Your task to perform on an android device: uninstall "Adobe Acrobat Reader" Image 0: 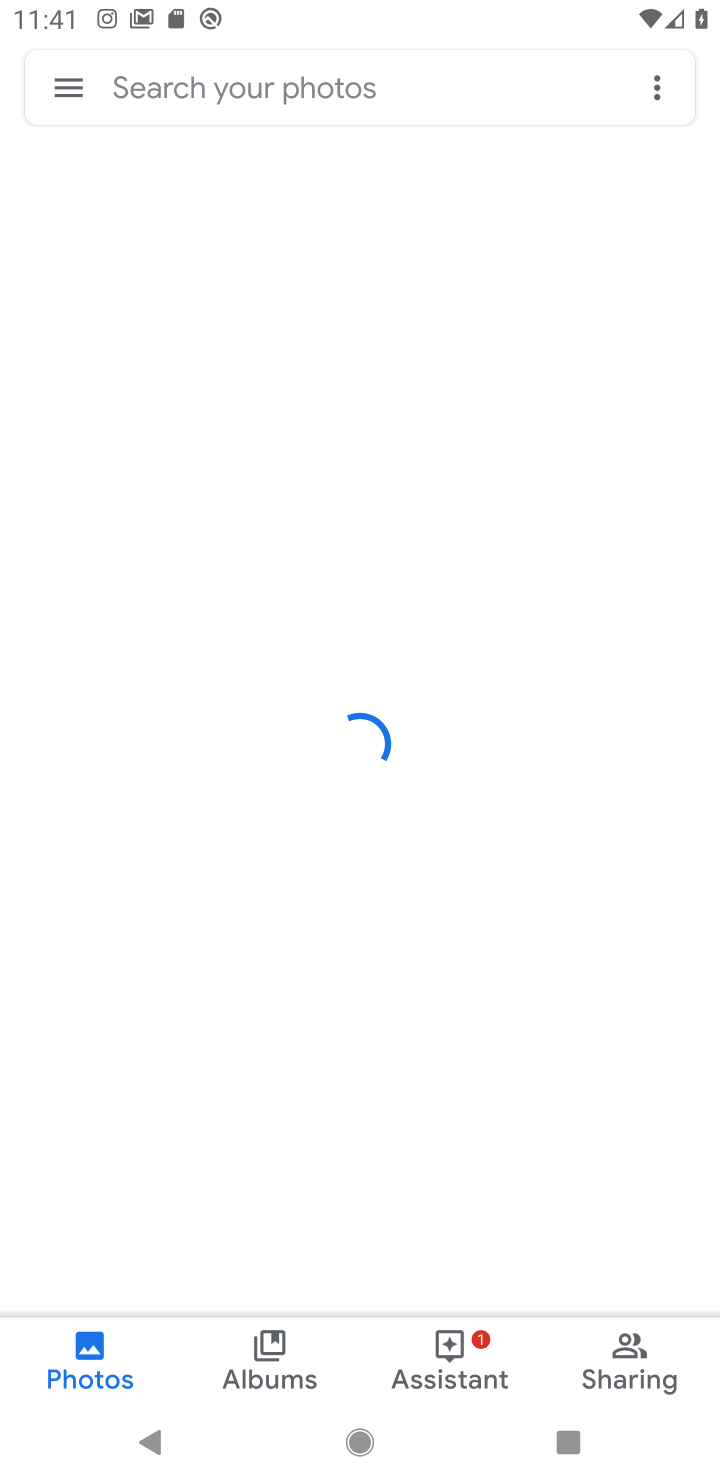
Step 0: press back button
Your task to perform on an android device: uninstall "Adobe Acrobat Reader" Image 1: 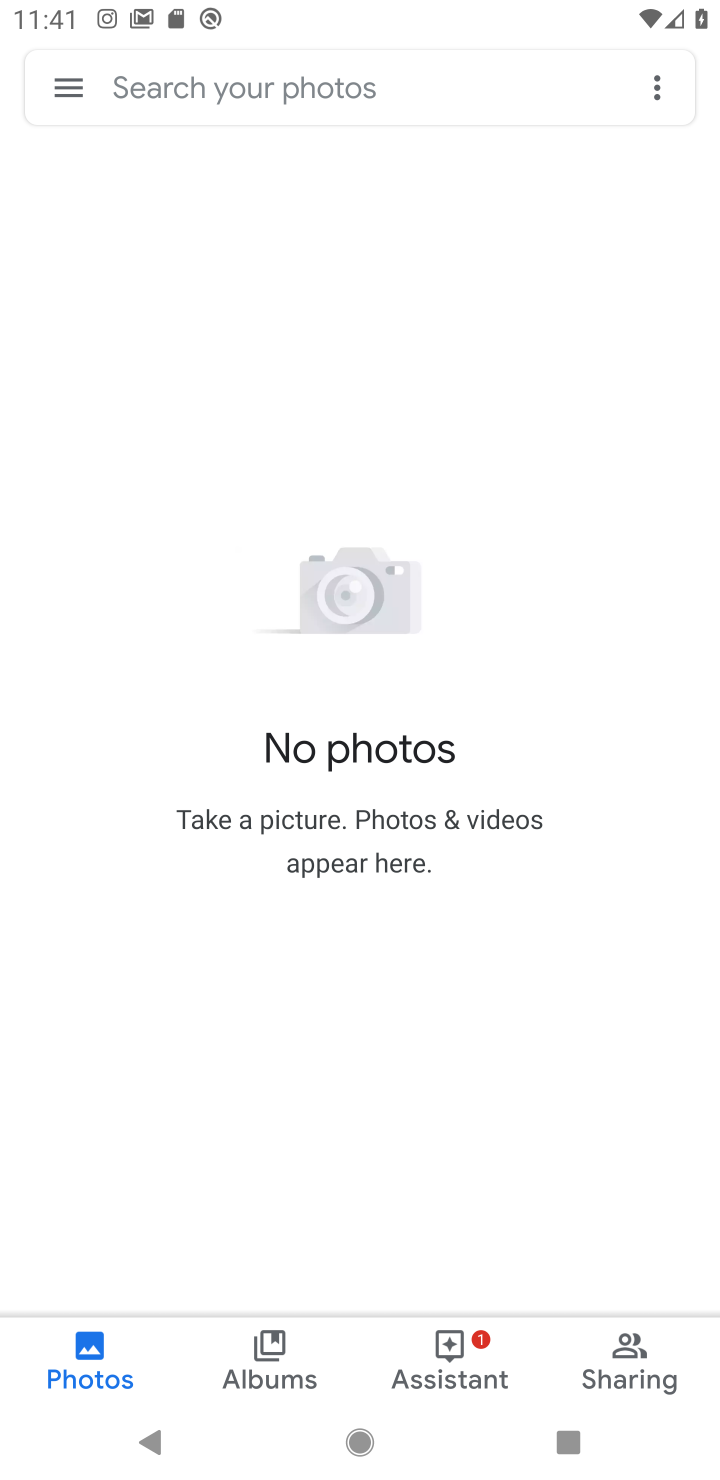
Step 1: press back button
Your task to perform on an android device: uninstall "Adobe Acrobat Reader" Image 2: 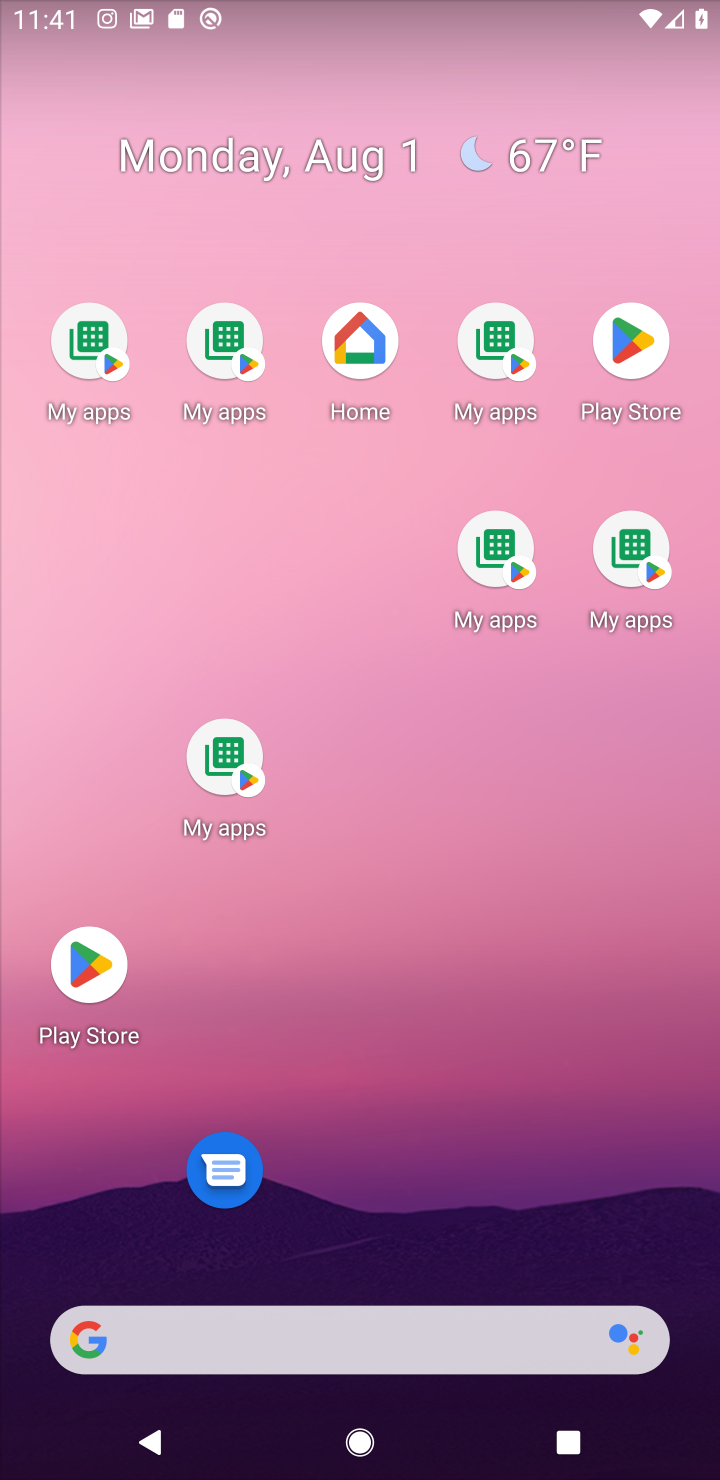
Step 2: press home button
Your task to perform on an android device: uninstall "Adobe Acrobat Reader" Image 3: 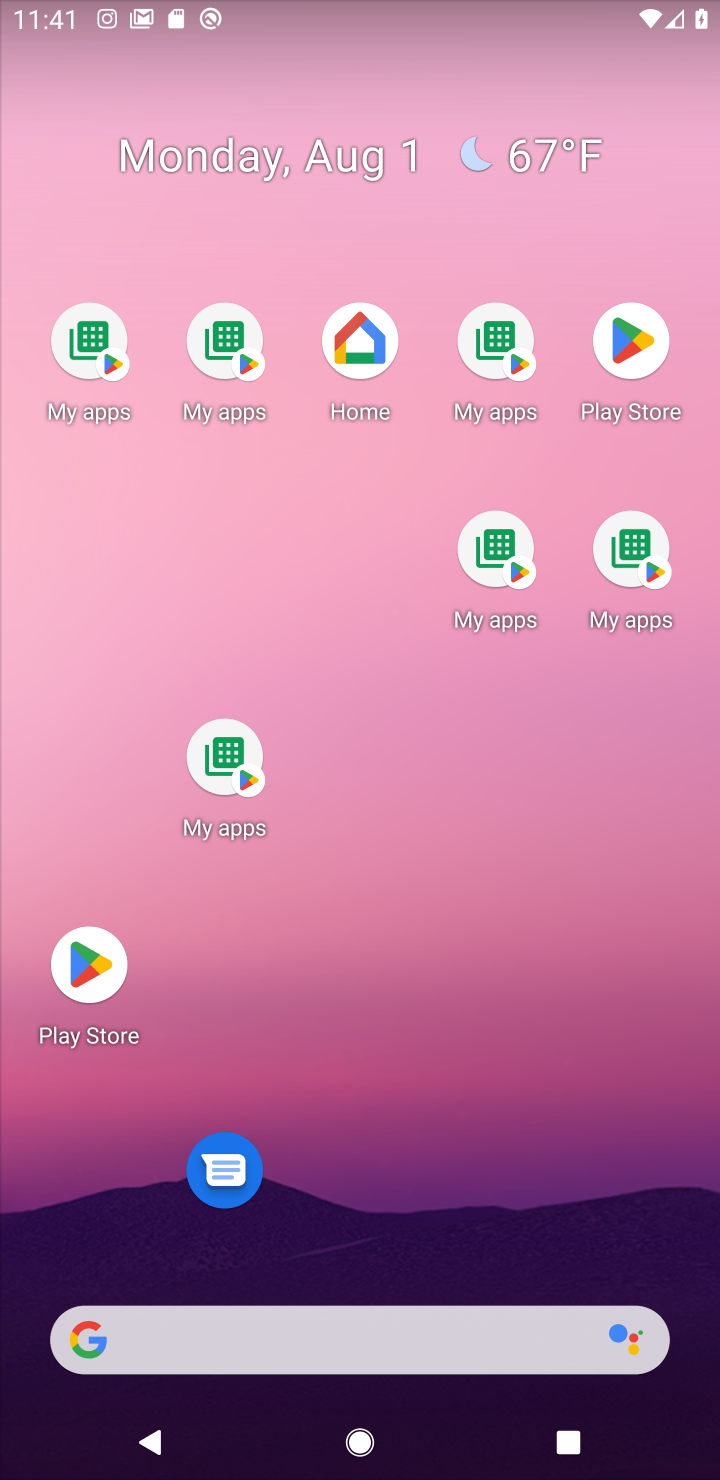
Step 3: drag from (344, 582) to (279, 166)
Your task to perform on an android device: uninstall "Adobe Acrobat Reader" Image 4: 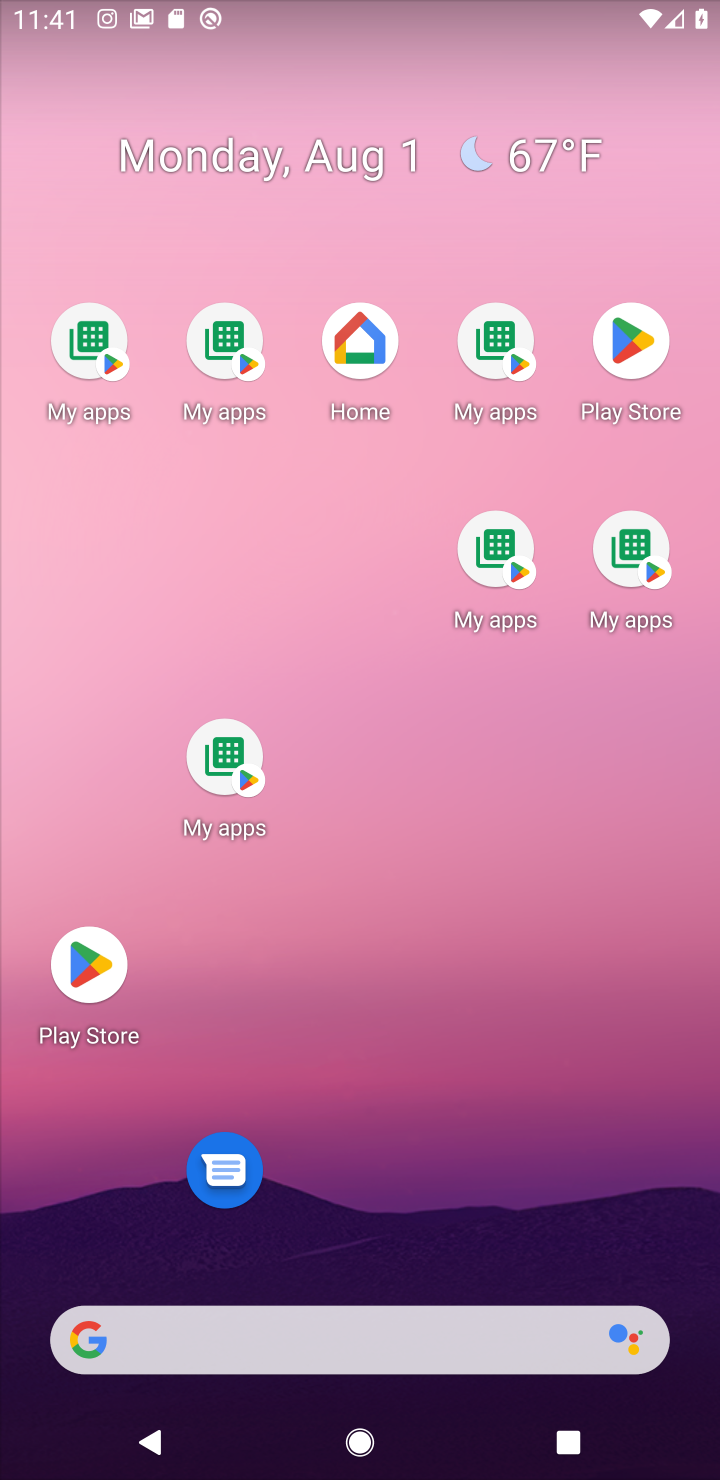
Step 4: drag from (434, 599) to (336, 149)
Your task to perform on an android device: uninstall "Adobe Acrobat Reader" Image 5: 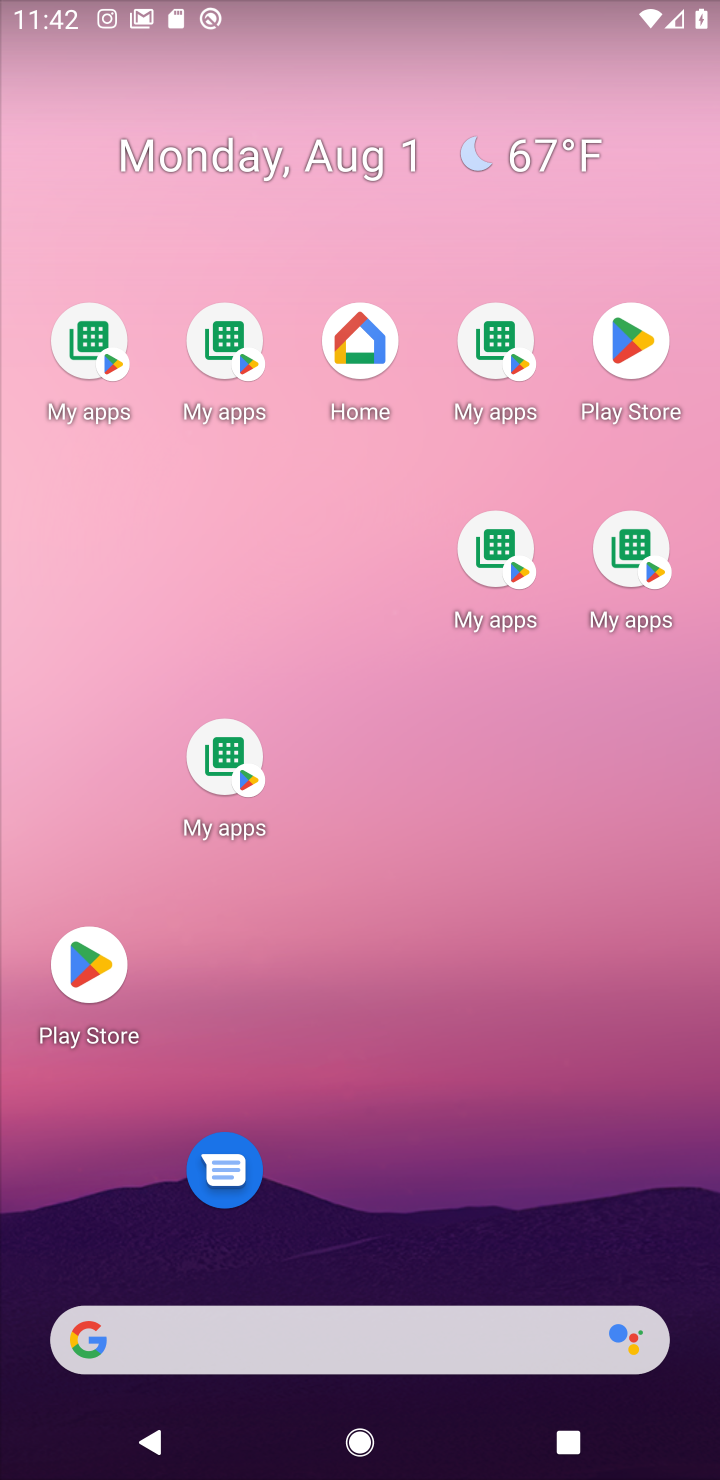
Step 5: drag from (376, 510) to (432, 670)
Your task to perform on an android device: uninstall "Adobe Acrobat Reader" Image 6: 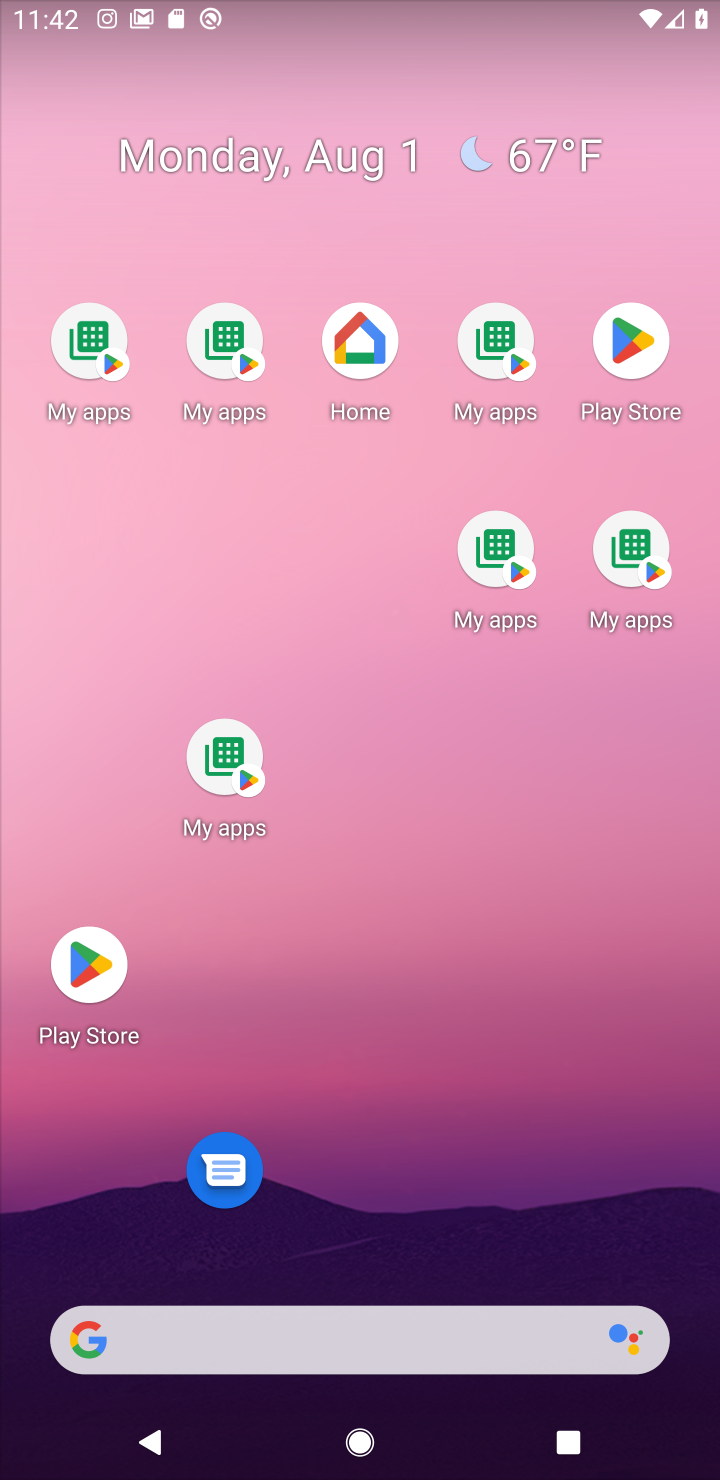
Step 6: drag from (369, 1136) to (300, 284)
Your task to perform on an android device: uninstall "Adobe Acrobat Reader" Image 7: 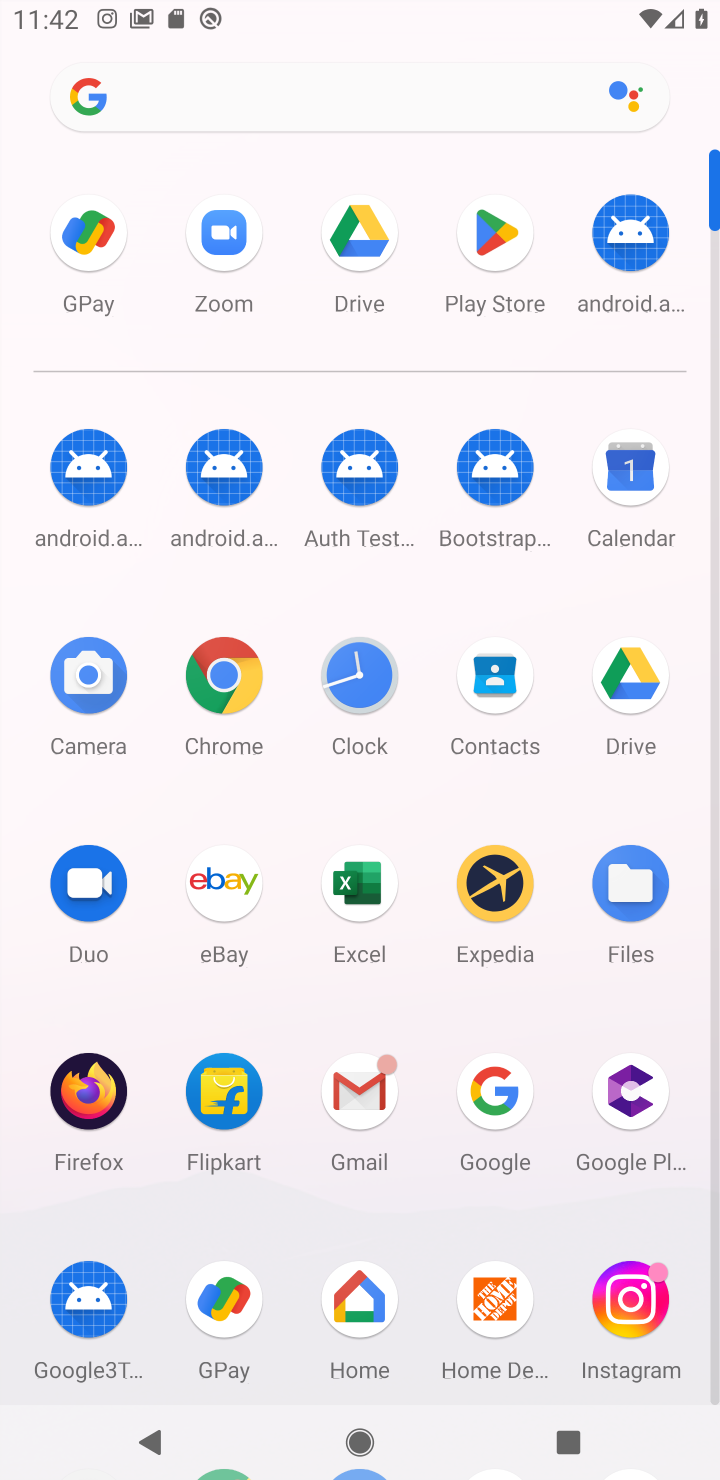
Step 7: click (508, 253)
Your task to perform on an android device: uninstall "Adobe Acrobat Reader" Image 8: 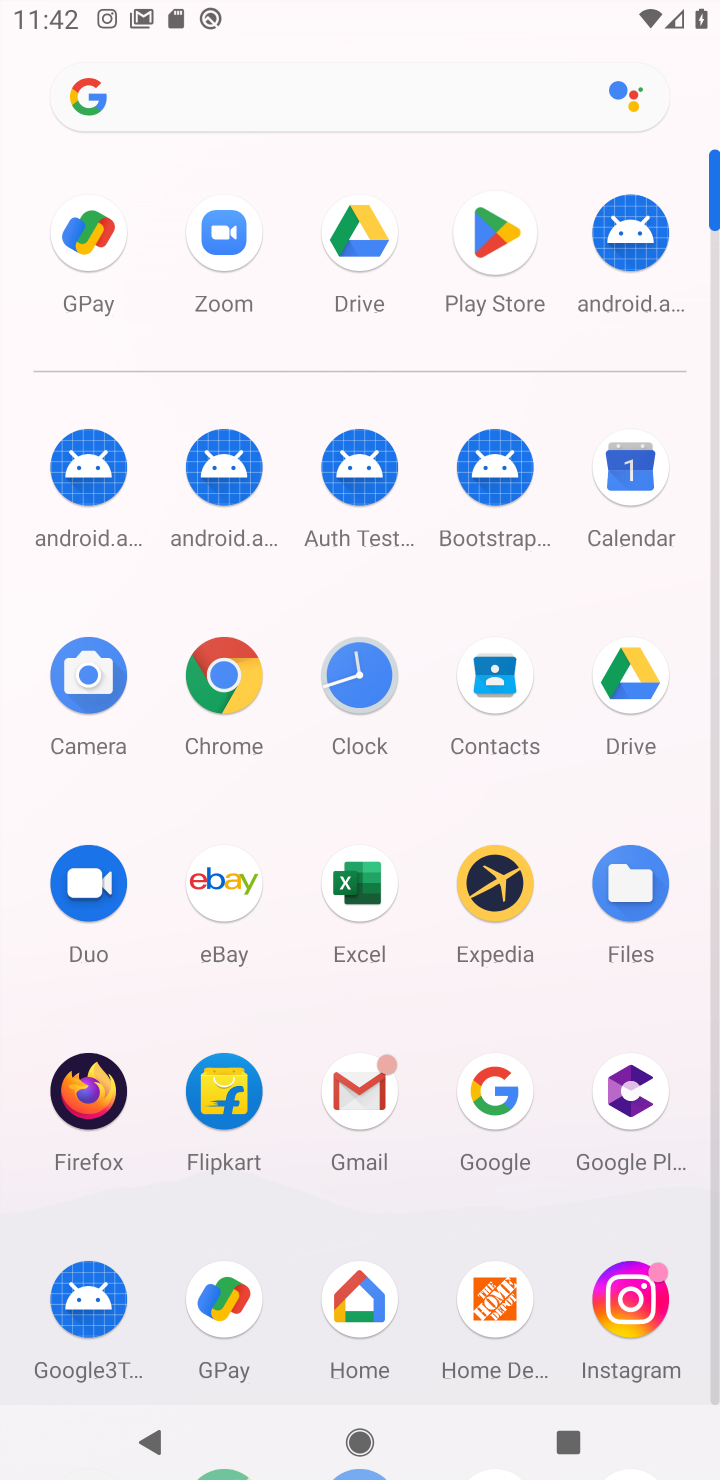
Step 8: click (493, 242)
Your task to perform on an android device: uninstall "Adobe Acrobat Reader" Image 9: 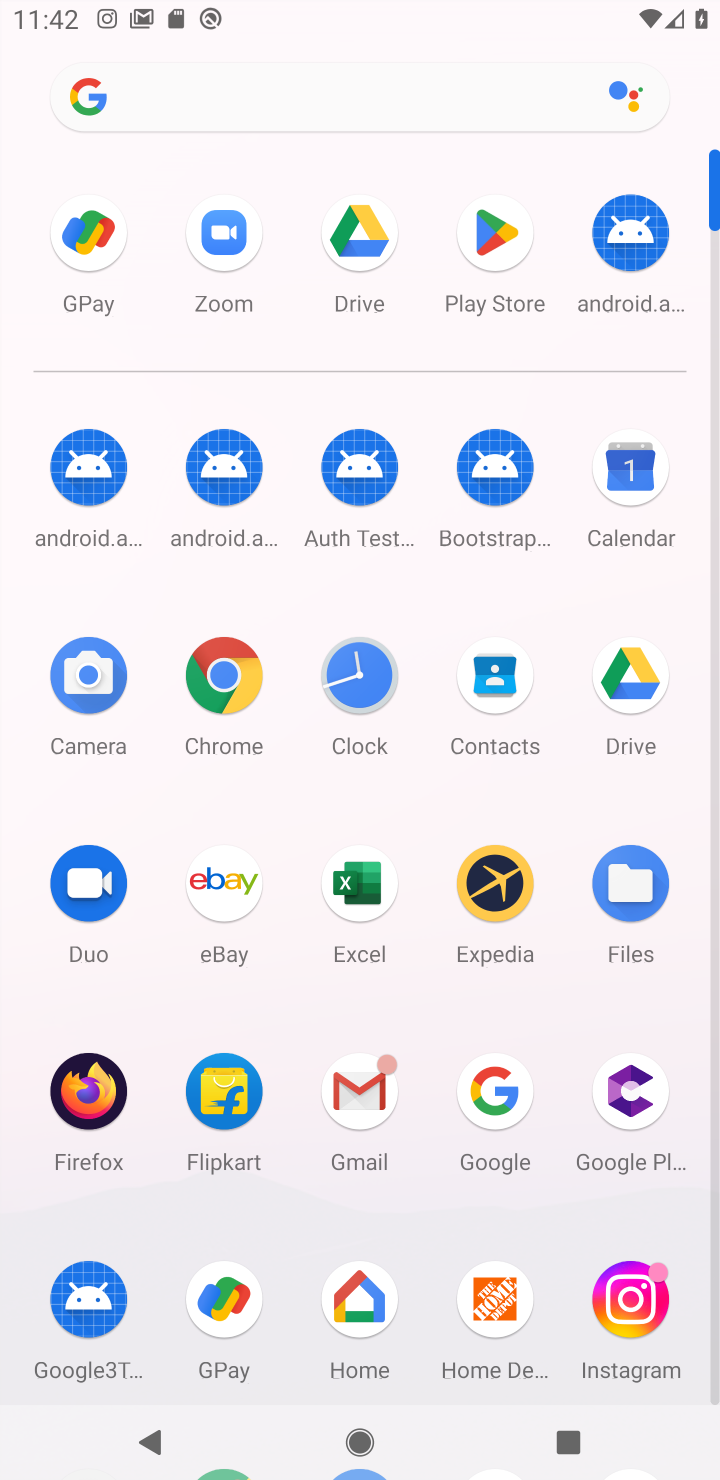
Step 9: click (487, 244)
Your task to perform on an android device: uninstall "Adobe Acrobat Reader" Image 10: 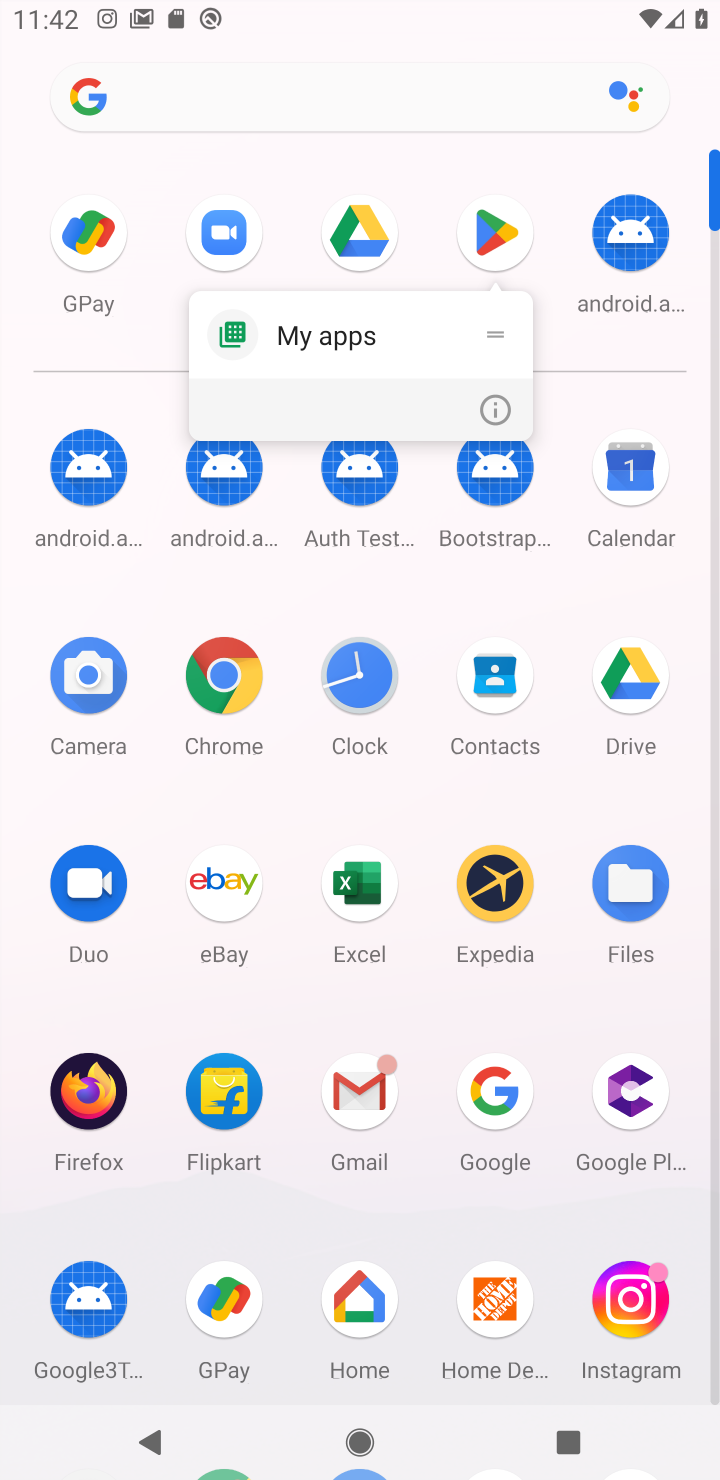
Step 10: drag from (487, 244) to (367, 336)
Your task to perform on an android device: uninstall "Adobe Acrobat Reader" Image 11: 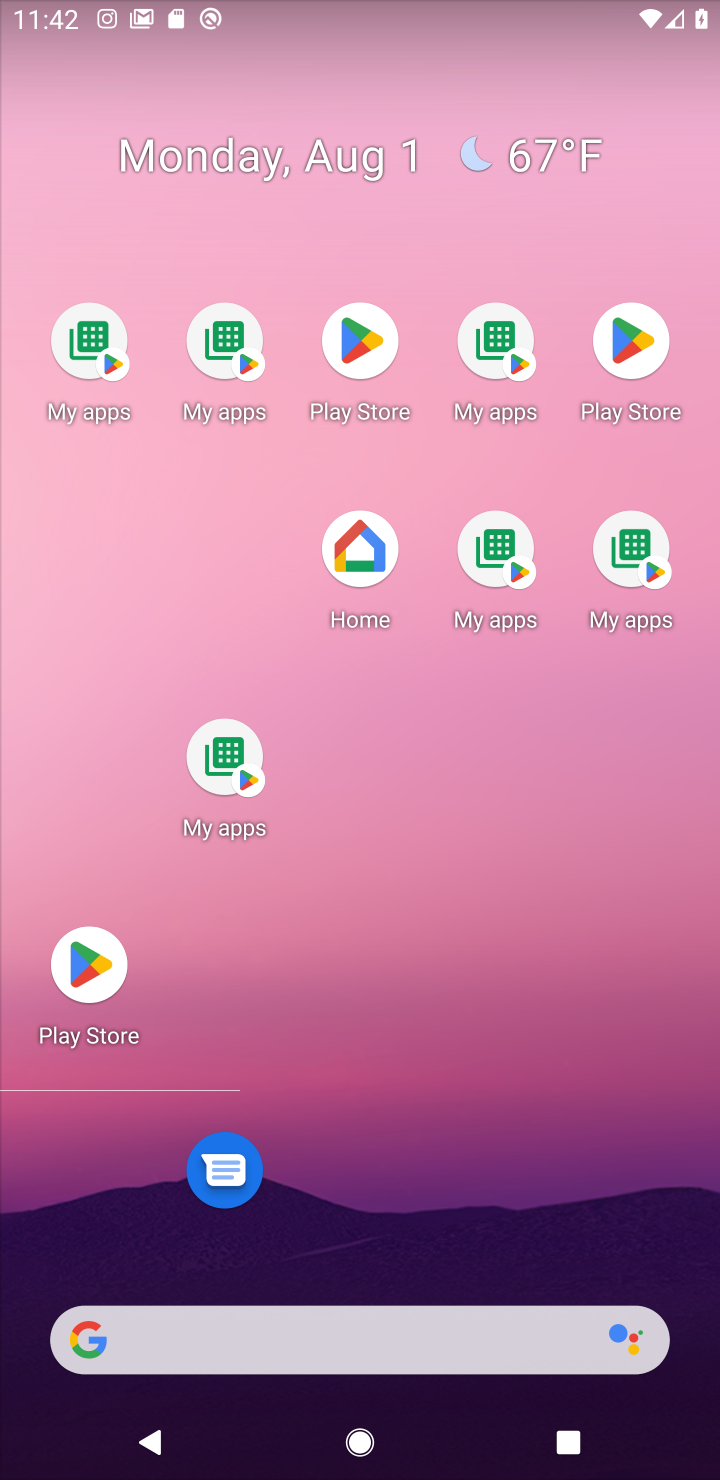
Step 11: drag from (326, 978) to (259, 12)
Your task to perform on an android device: uninstall "Adobe Acrobat Reader" Image 12: 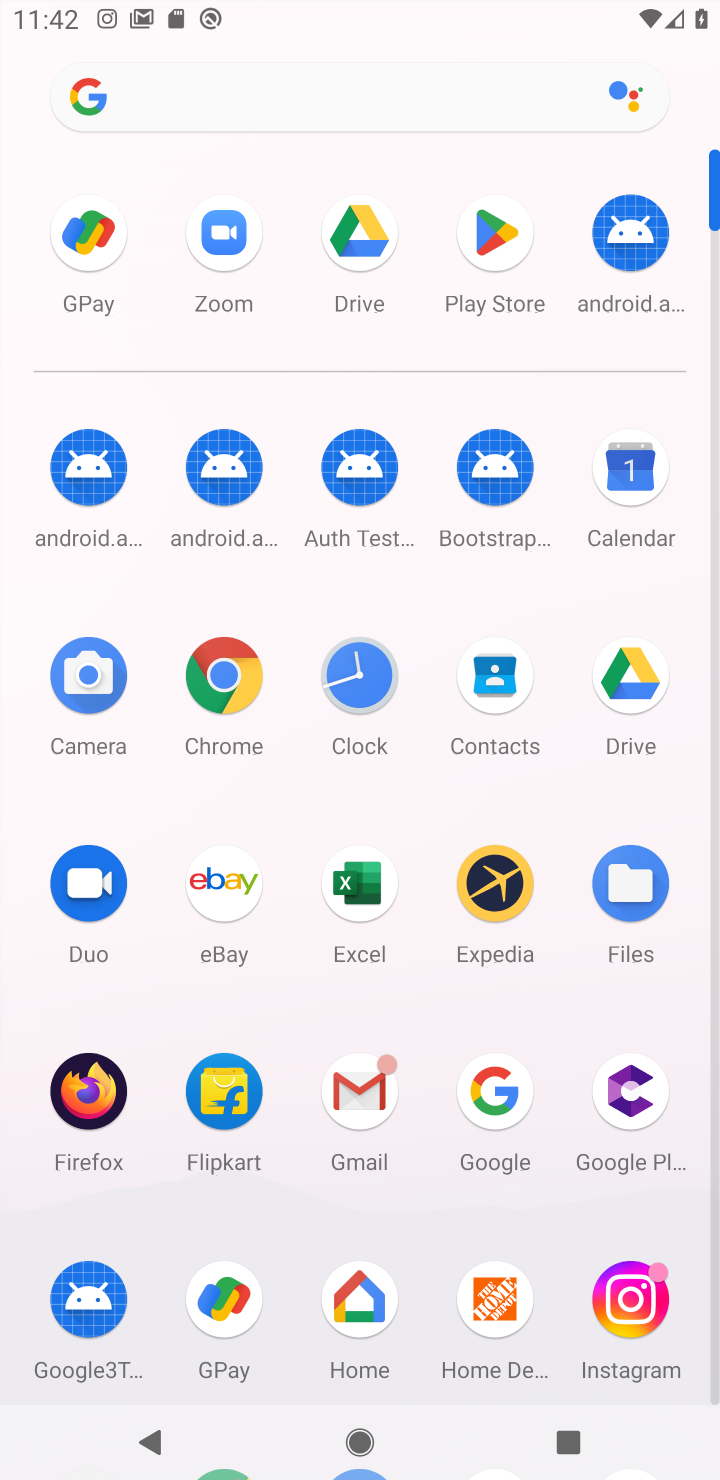
Step 12: click (489, 213)
Your task to perform on an android device: uninstall "Adobe Acrobat Reader" Image 13: 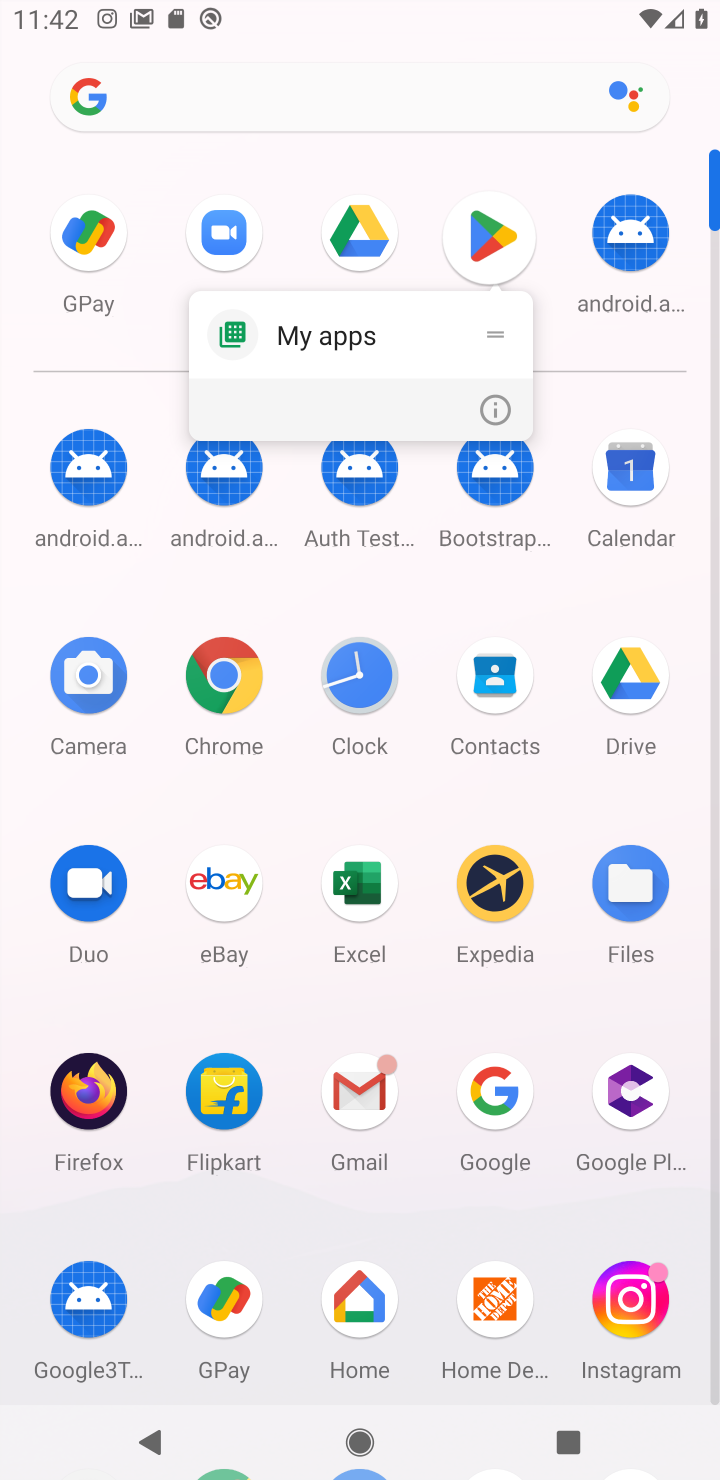
Step 13: click (486, 235)
Your task to perform on an android device: uninstall "Adobe Acrobat Reader" Image 14: 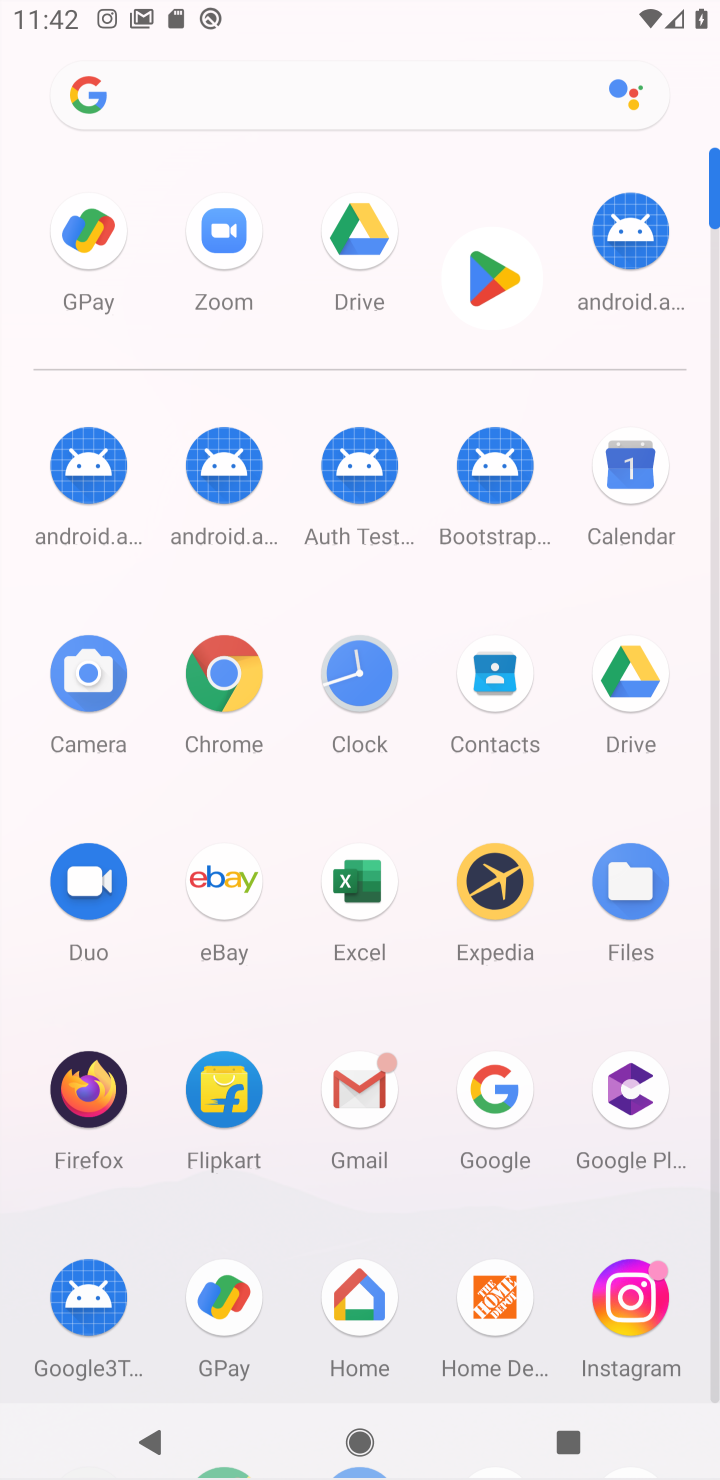
Step 14: click (505, 248)
Your task to perform on an android device: uninstall "Adobe Acrobat Reader" Image 15: 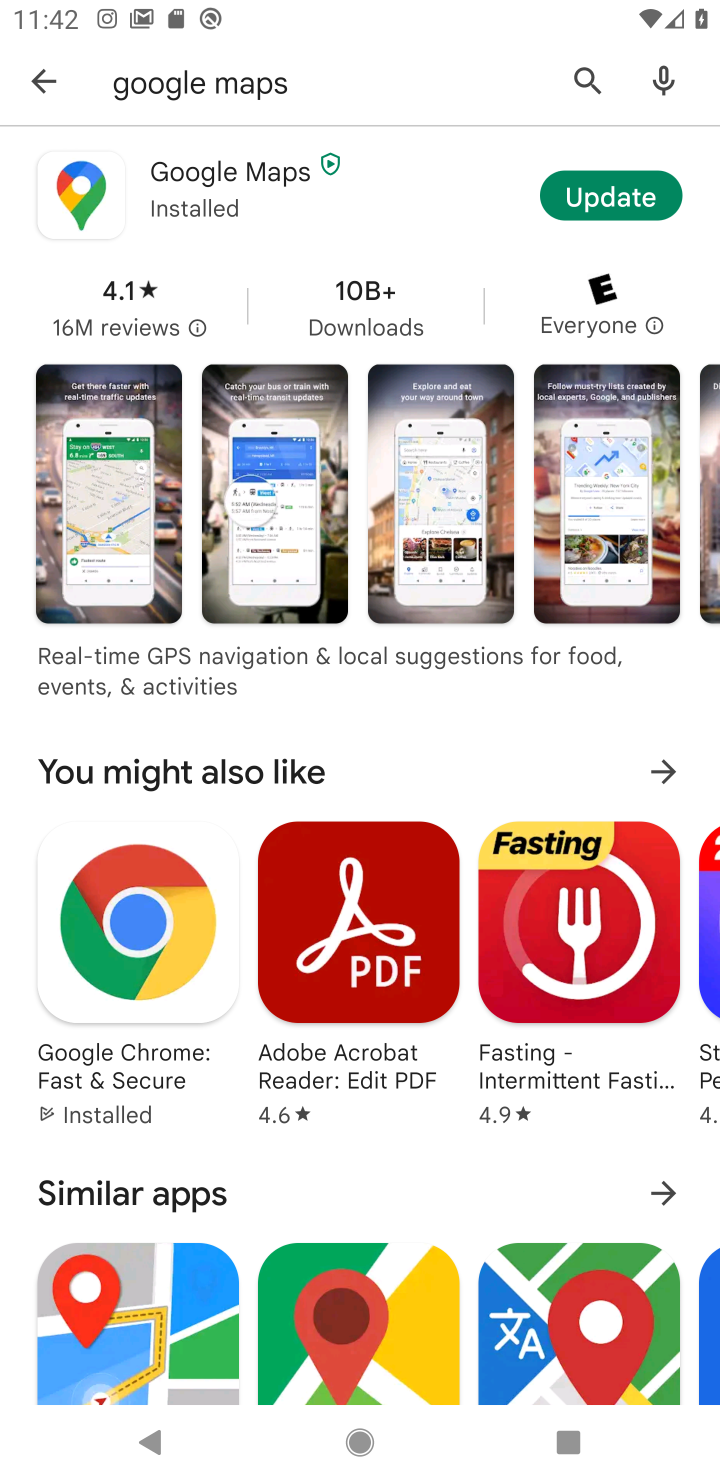
Step 15: click (580, 72)
Your task to perform on an android device: uninstall "Adobe Acrobat Reader" Image 16: 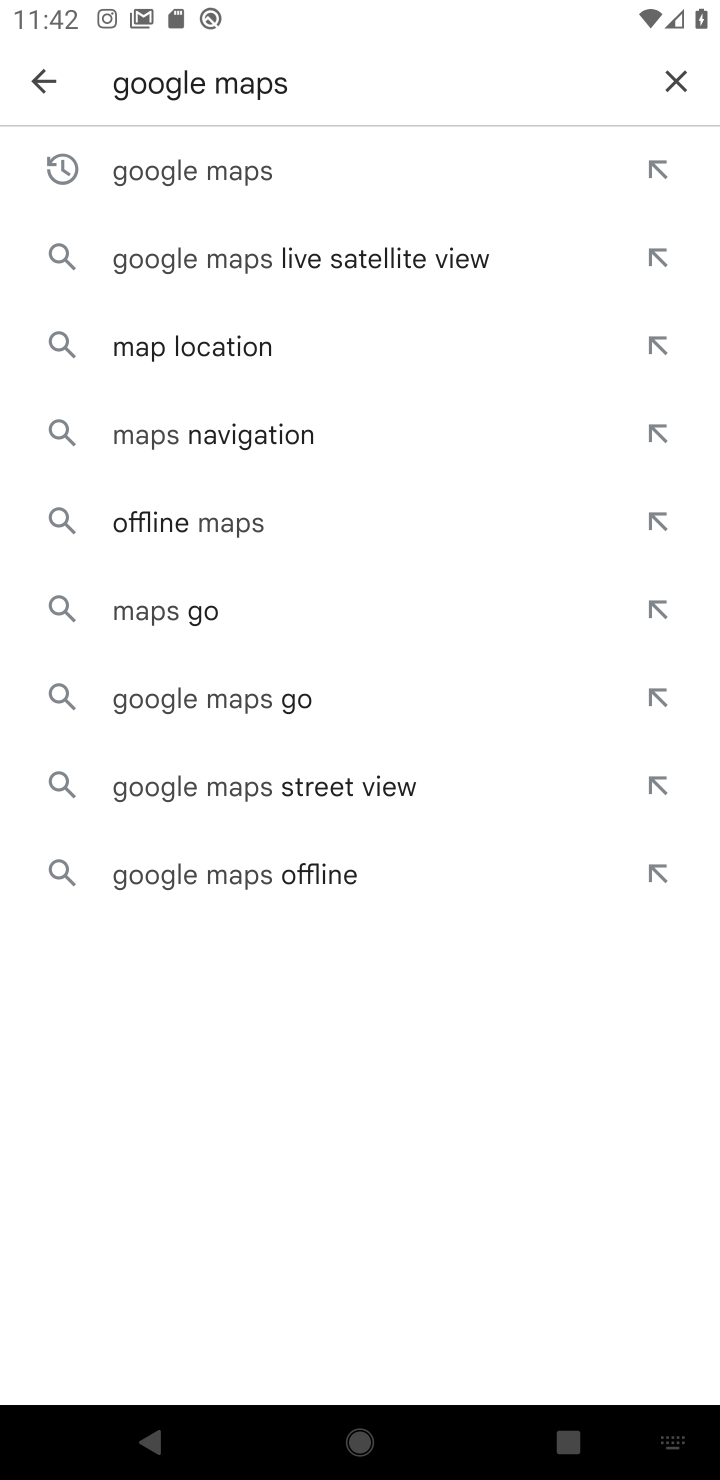
Step 16: click (673, 82)
Your task to perform on an android device: uninstall "Adobe Acrobat Reader" Image 17: 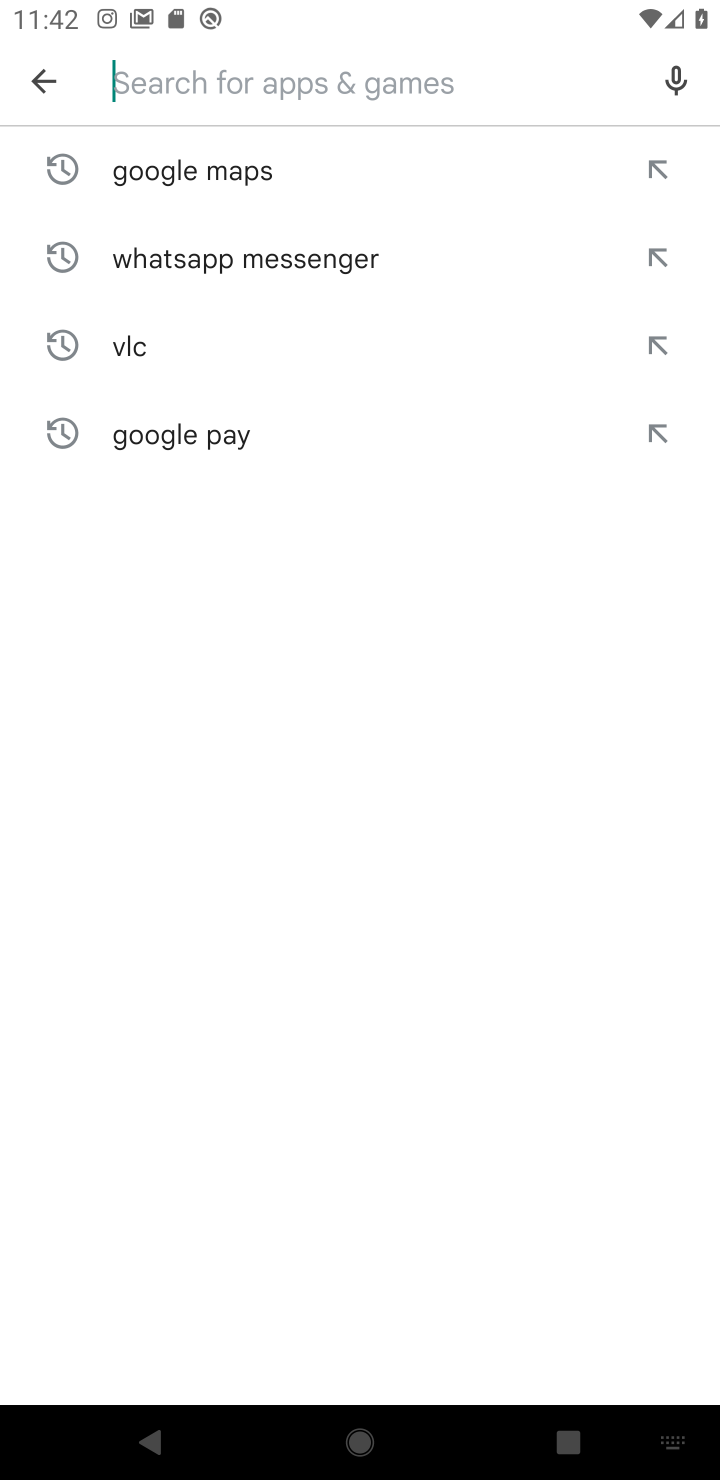
Step 17: type "adobe acrfobat reader"
Your task to perform on an android device: uninstall "Adobe Acrobat Reader" Image 18: 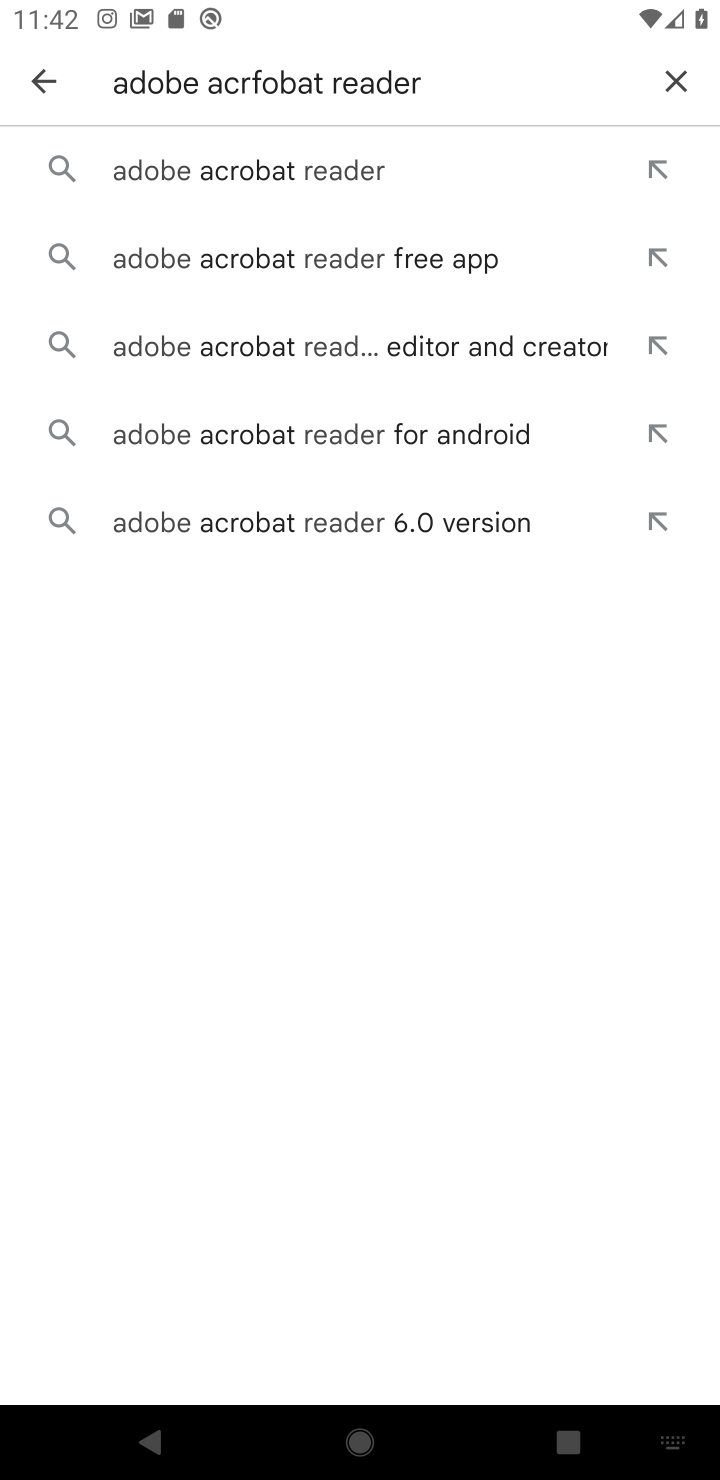
Step 18: click (234, 161)
Your task to perform on an android device: uninstall "Adobe Acrobat Reader" Image 19: 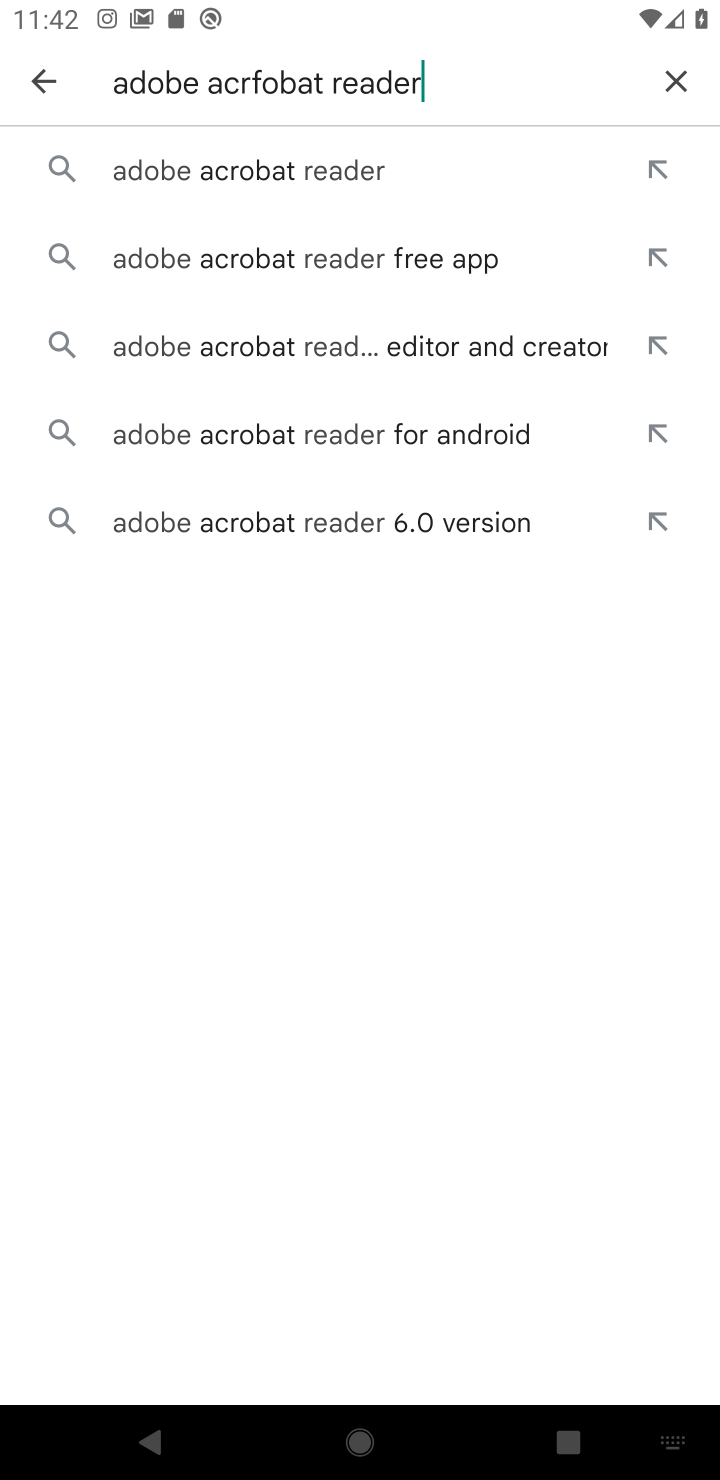
Step 19: click (245, 153)
Your task to perform on an android device: uninstall "Adobe Acrobat Reader" Image 20: 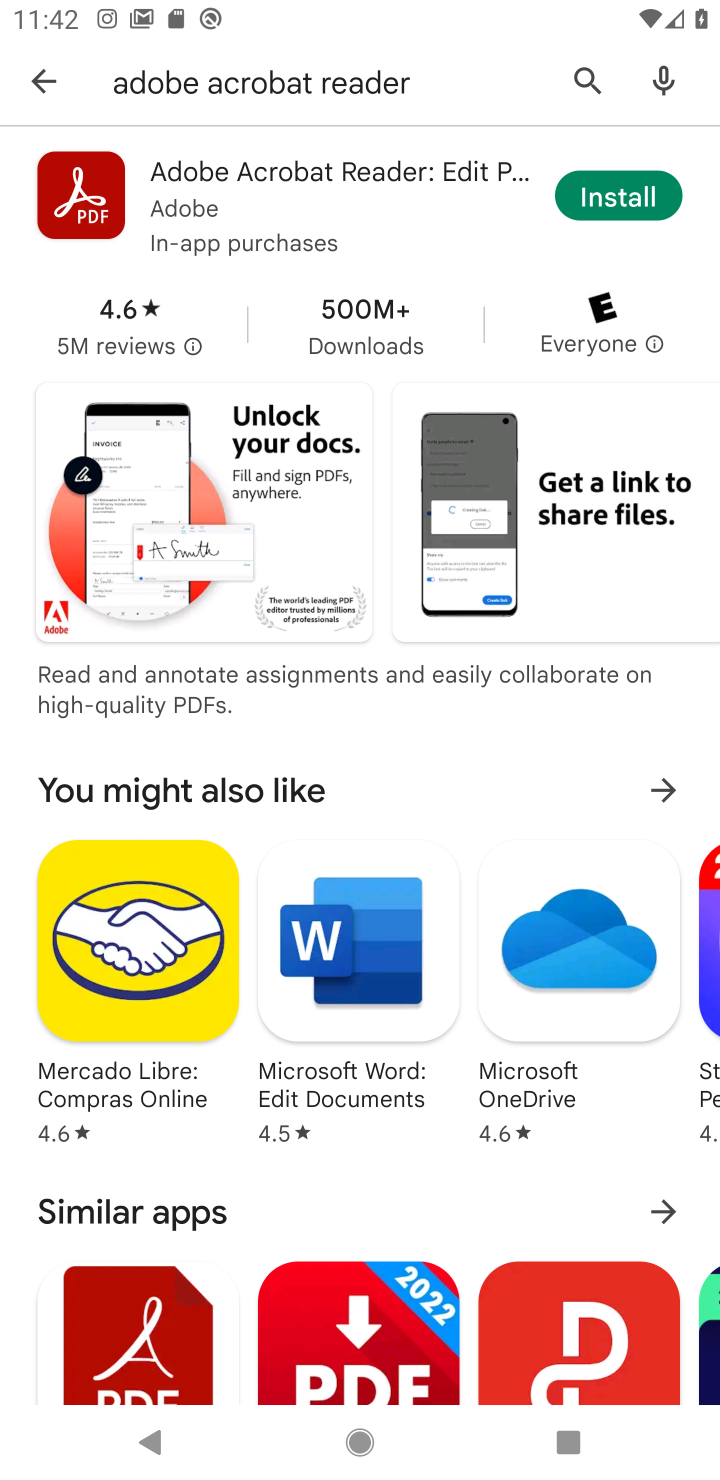
Step 20: task complete